Your task to perform on an android device: Is it going to rain tomorrow? Image 0: 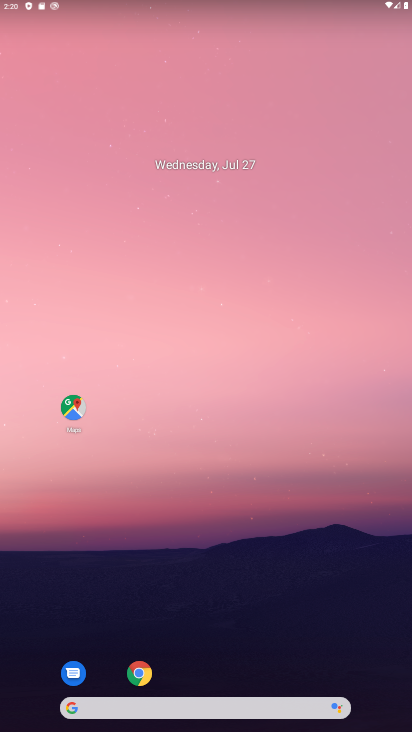
Step 0: press home button
Your task to perform on an android device: Is it going to rain tomorrow? Image 1: 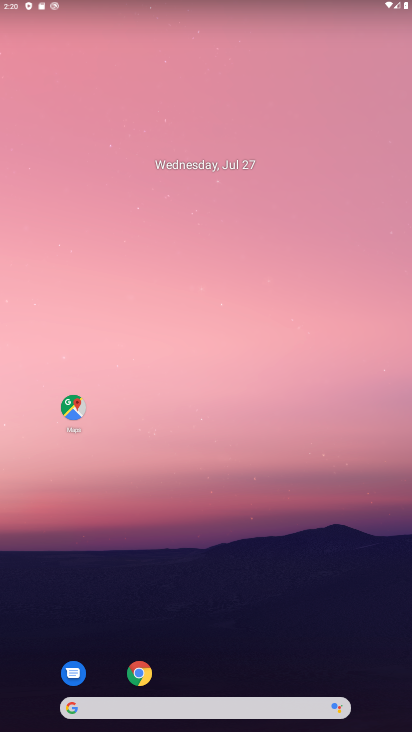
Step 1: click (73, 706)
Your task to perform on an android device: Is it going to rain tomorrow? Image 2: 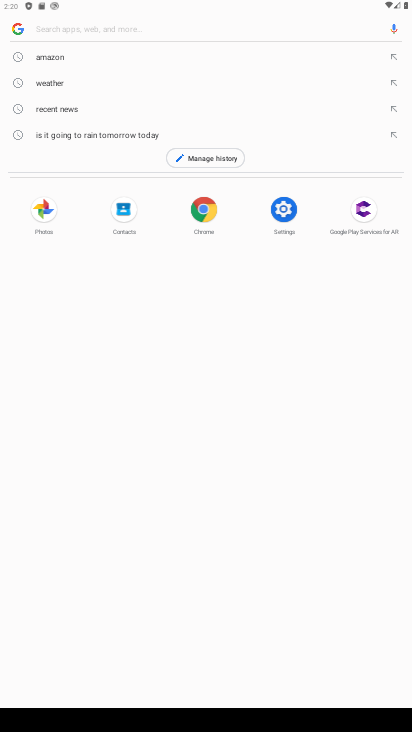
Step 2: press enter
Your task to perform on an android device: Is it going to rain tomorrow? Image 3: 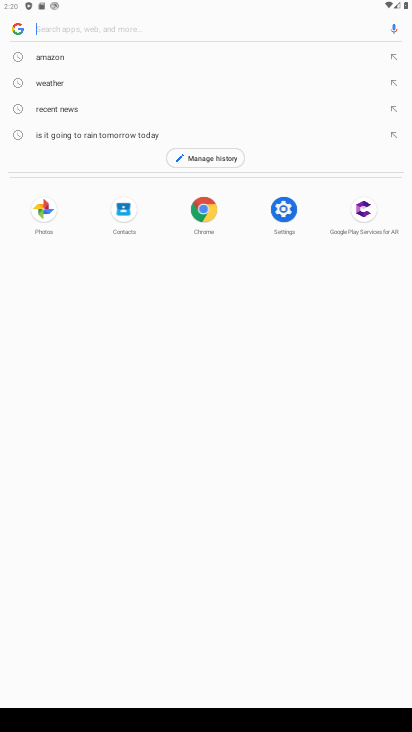
Step 3: type "rain tomorrow?"
Your task to perform on an android device: Is it going to rain tomorrow? Image 4: 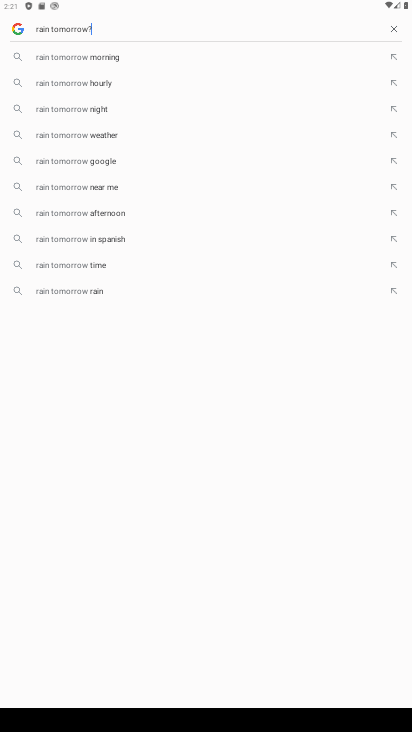
Step 4: press enter
Your task to perform on an android device: Is it going to rain tomorrow? Image 5: 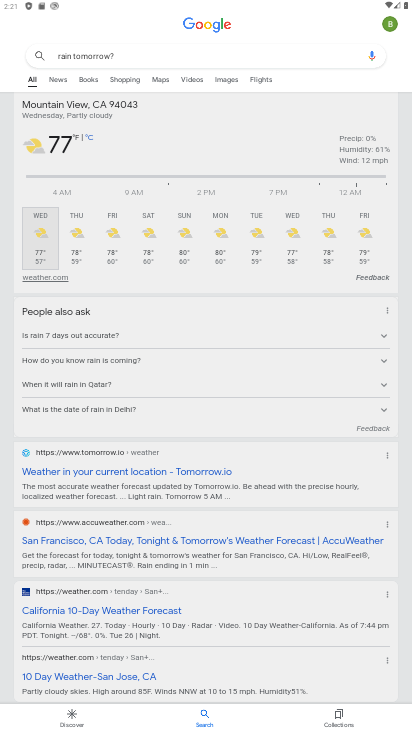
Step 5: task complete